Your task to perform on an android device: turn on location history Image 0: 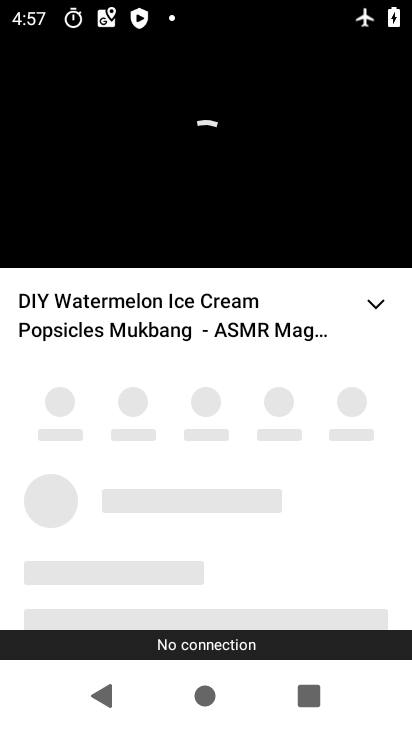
Step 0: press home button
Your task to perform on an android device: turn on location history Image 1: 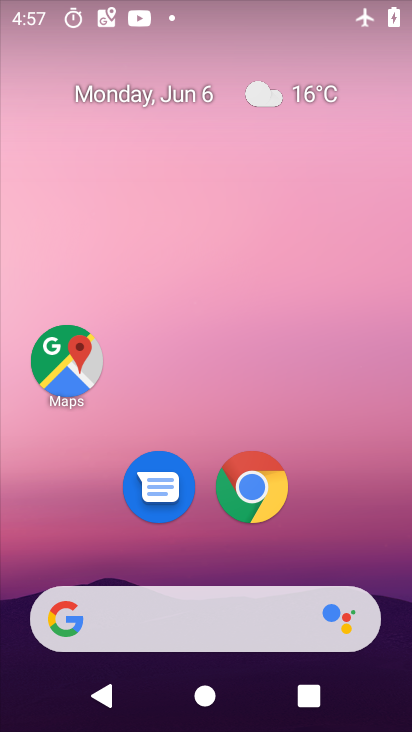
Step 1: drag from (362, 494) to (275, 132)
Your task to perform on an android device: turn on location history Image 2: 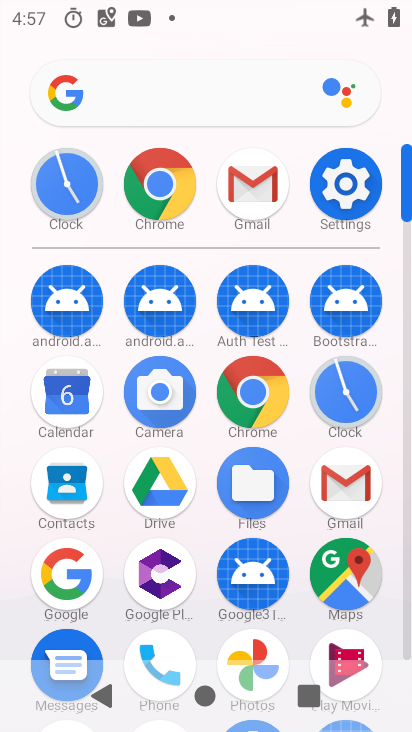
Step 2: click (345, 199)
Your task to perform on an android device: turn on location history Image 3: 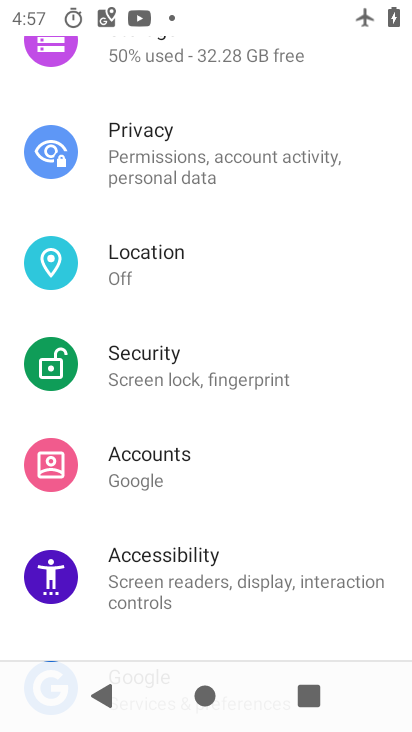
Step 3: click (115, 279)
Your task to perform on an android device: turn on location history Image 4: 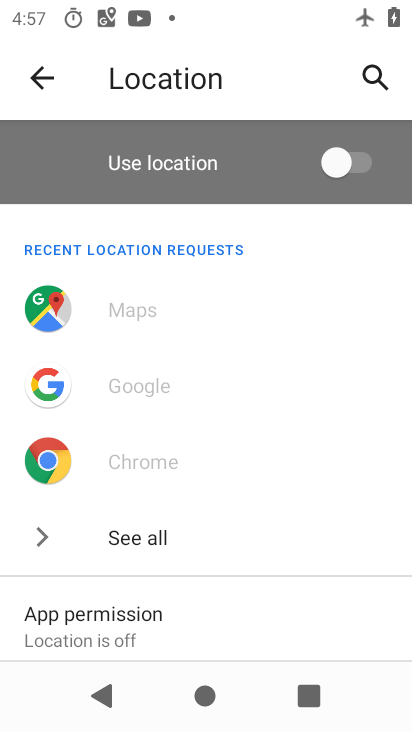
Step 4: drag from (238, 532) to (277, 31)
Your task to perform on an android device: turn on location history Image 5: 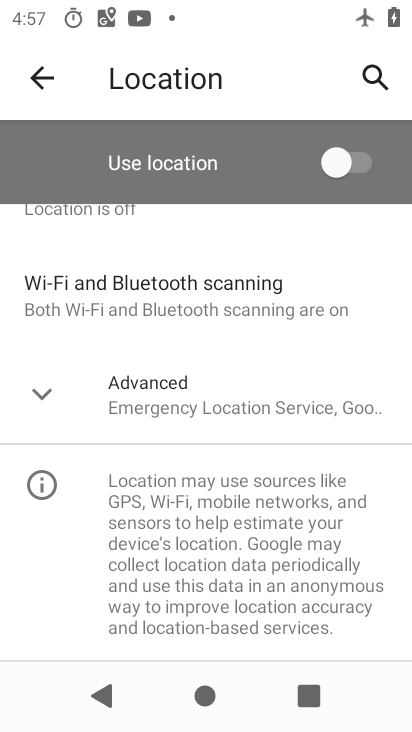
Step 5: click (164, 387)
Your task to perform on an android device: turn on location history Image 6: 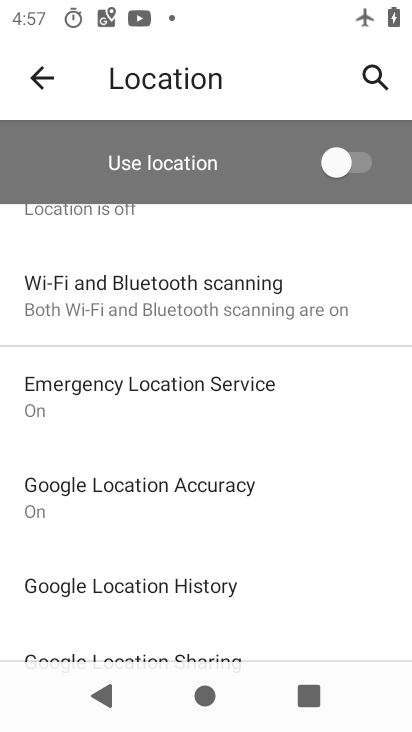
Step 6: click (197, 583)
Your task to perform on an android device: turn on location history Image 7: 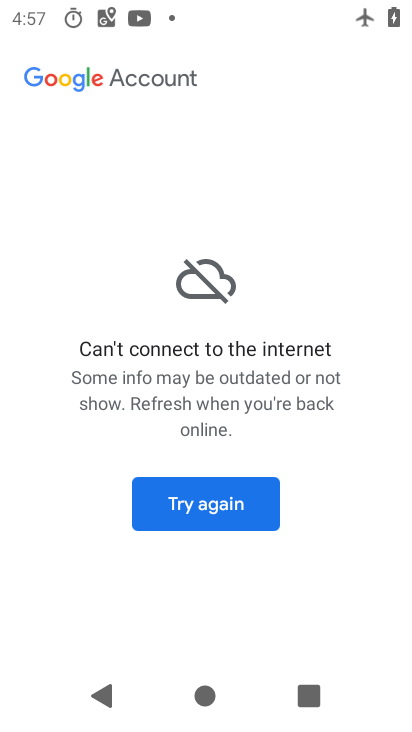
Step 7: task complete